Your task to perform on an android device: open sync settings in chrome Image 0: 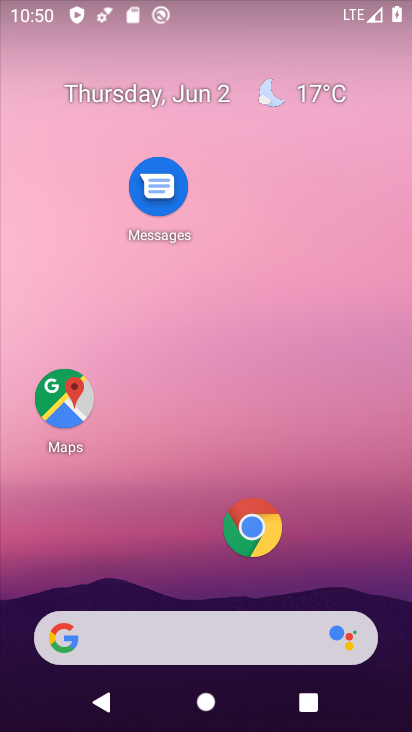
Step 0: press home button
Your task to perform on an android device: open sync settings in chrome Image 1: 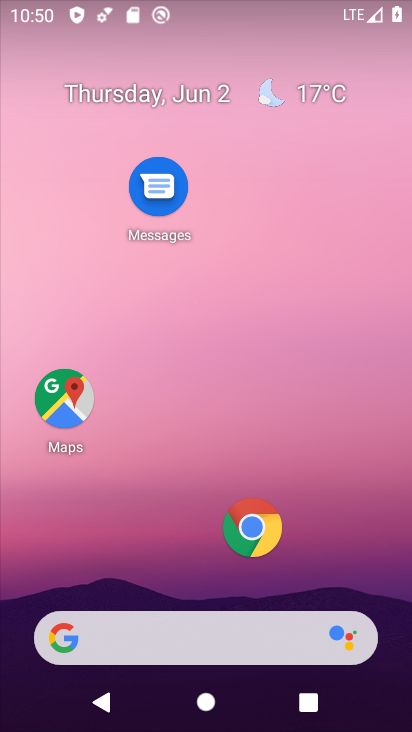
Step 1: click (250, 520)
Your task to perform on an android device: open sync settings in chrome Image 2: 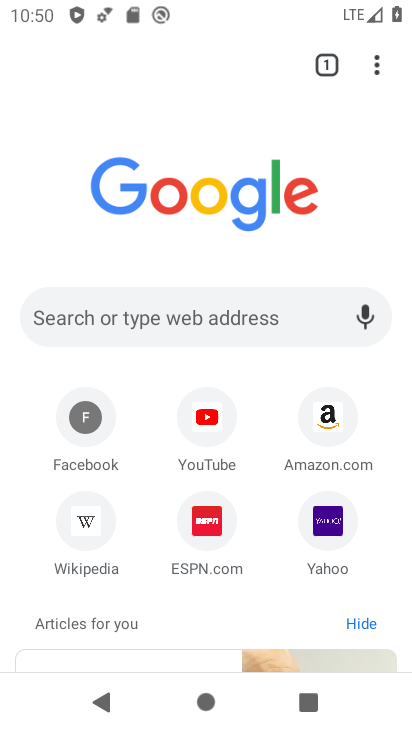
Step 2: click (376, 62)
Your task to perform on an android device: open sync settings in chrome Image 3: 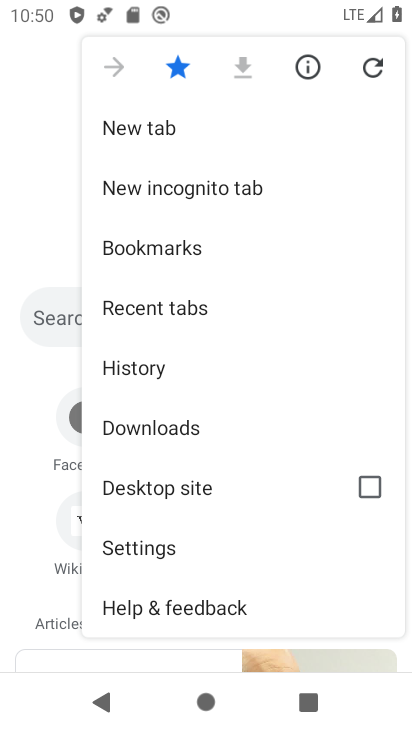
Step 3: click (188, 543)
Your task to perform on an android device: open sync settings in chrome Image 4: 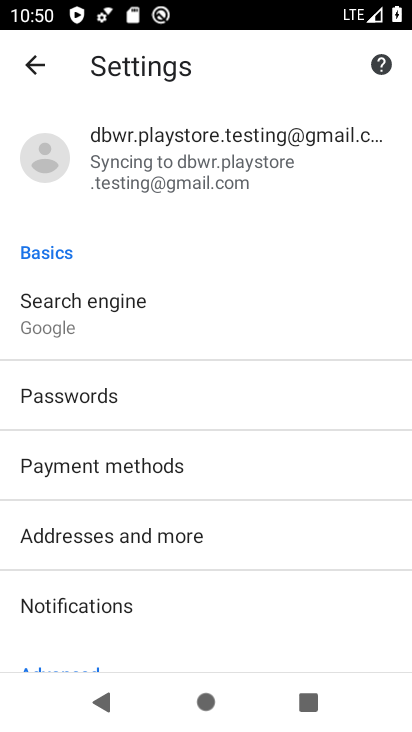
Step 4: click (165, 170)
Your task to perform on an android device: open sync settings in chrome Image 5: 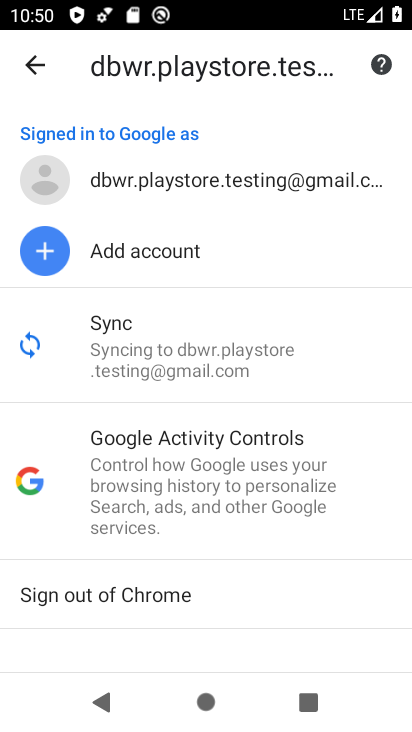
Step 5: click (172, 330)
Your task to perform on an android device: open sync settings in chrome Image 6: 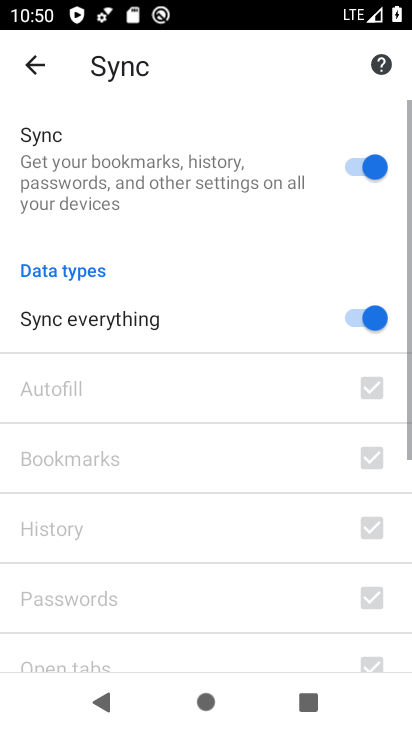
Step 6: task complete